Your task to perform on an android device: Open calendar and show me the second week of next month Image 0: 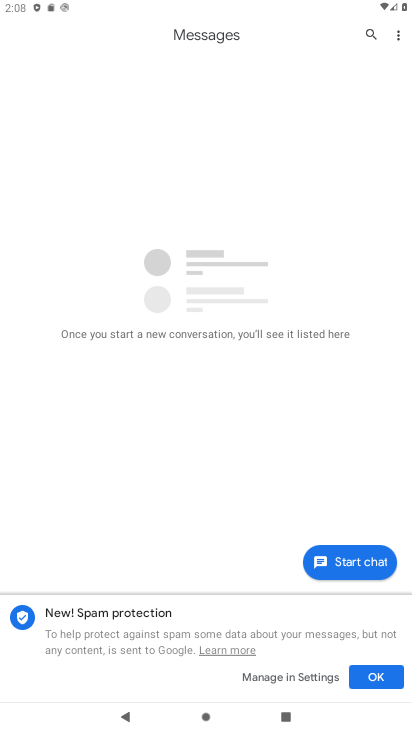
Step 0: press home button
Your task to perform on an android device: Open calendar and show me the second week of next month Image 1: 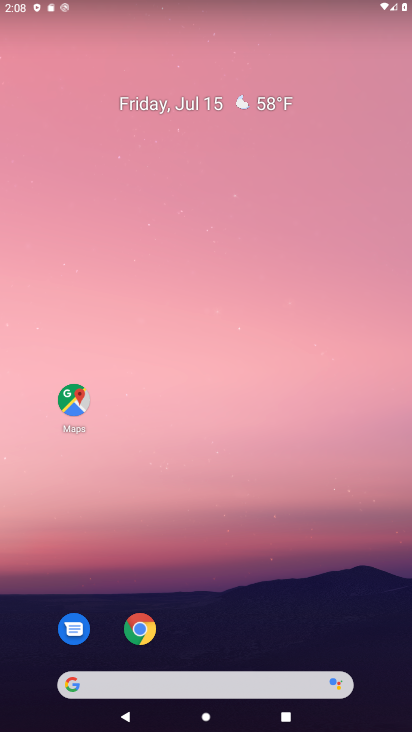
Step 1: drag from (223, 621) to (204, 4)
Your task to perform on an android device: Open calendar and show me the second week of next month Image 2: 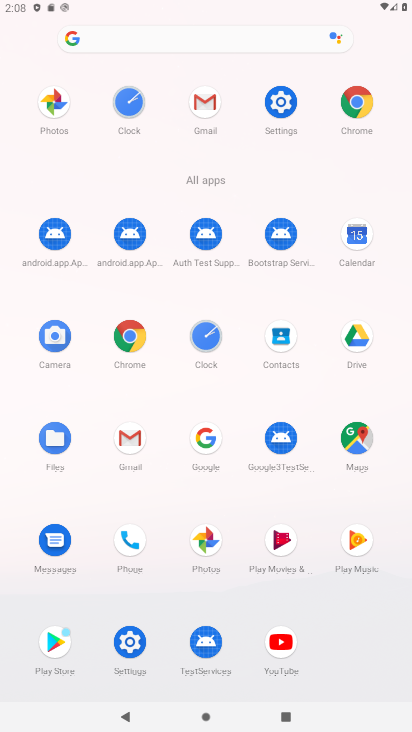
Step 2: click (355, 229)
Your task to perform on an android device: Open calendar and show me the second week of next month Image 3: 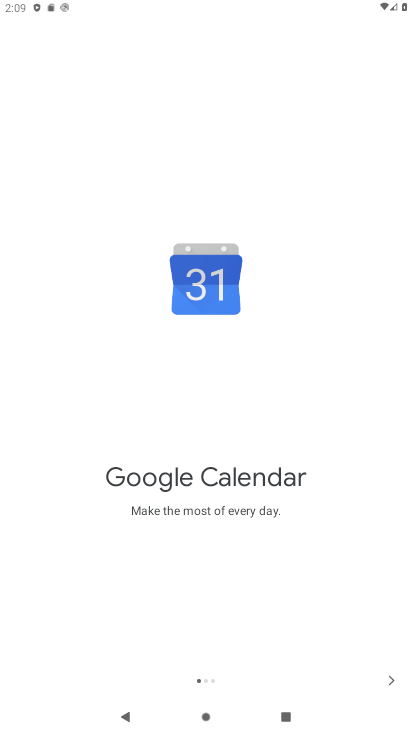
Step 3: click (396, 675)
Your task to perform on an android device: Open calendar and show me the second week of next month Image 4: 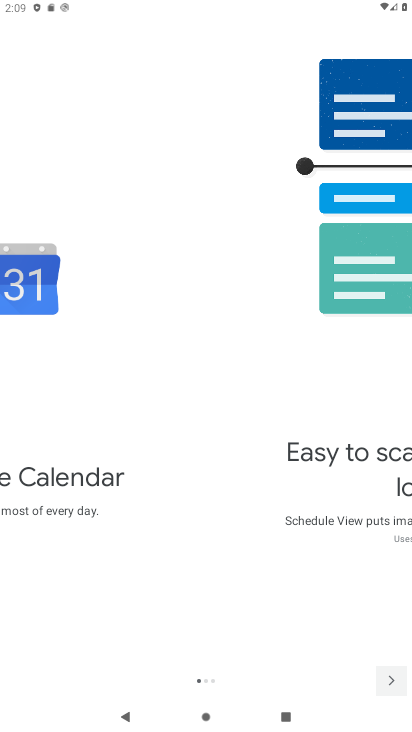
Step 4: click (396, 675)
Your task to perform on an android device: Open calendar and show me the second week of next month Image 5: 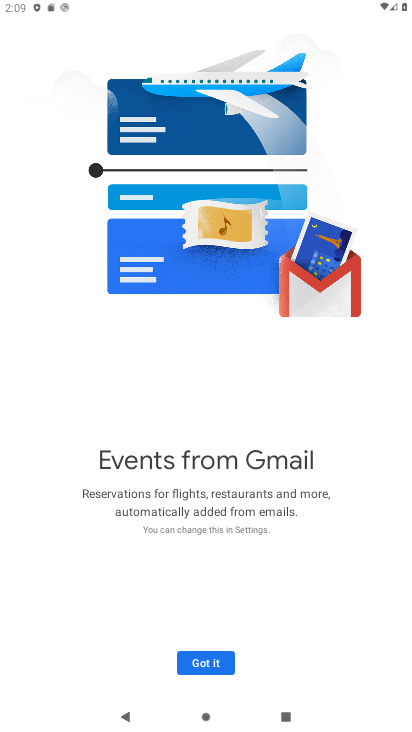
Step 5: click (202, 667)
Your task to perform on an android device: Open calendar and show me the second week of next month Image 6: 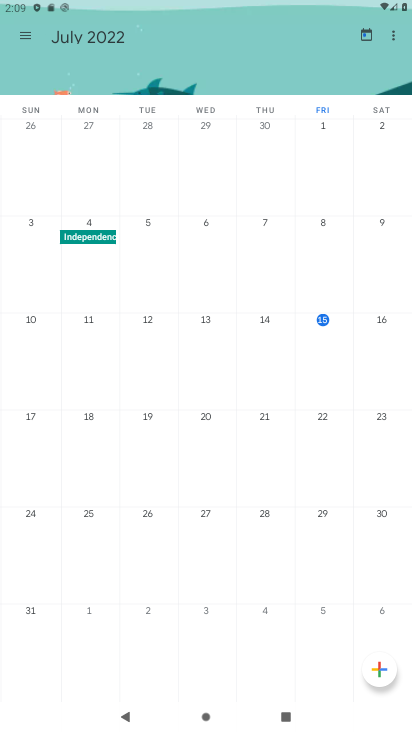
Step 6: click (34, 37)
Your task to perform on an android device: Open calendar and show me the second week of next month Image 7: 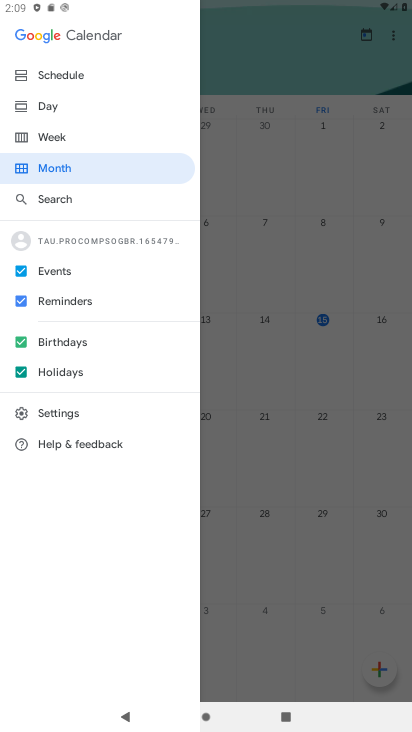
Step 7: click (68, 136)
Your task to perform on an android device: Open calendar and show me the second week of next month Image 8: 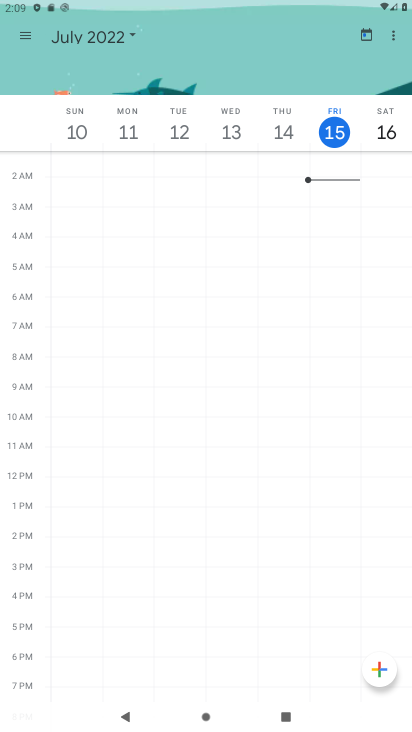
Step 8: click (104, 37)
Your task to perform on an android device: Open calendar and show me the second week of next month Image 9: 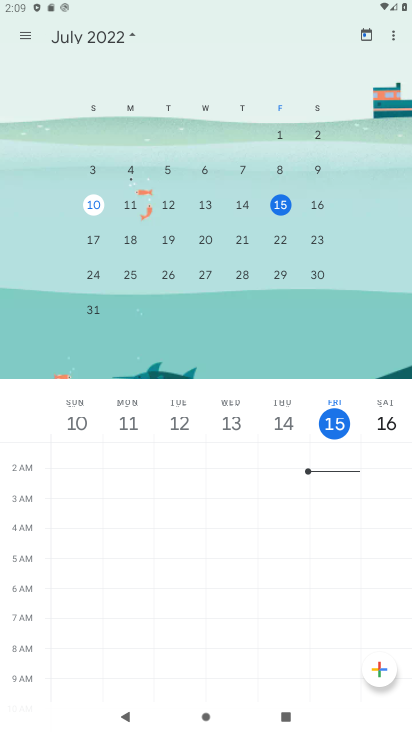
Step 9: drag from (332, 260) to (50, 263)
Your task to perform on an android device: Open calendar and show me the second week of next month Image 10: 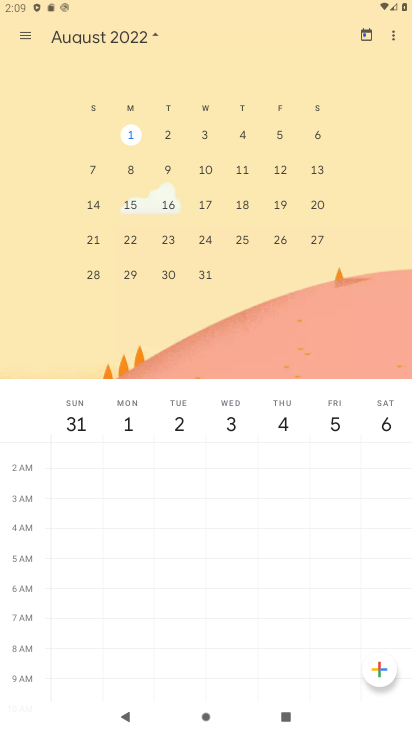
Step 10: click (211, 168)
Your task to perform on an android device: Open calendar and show me the second week of next month Image 11: 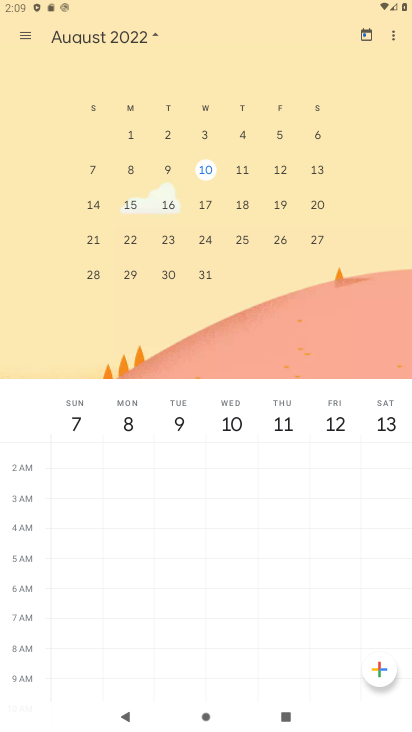
Step 11: task complete